Your task to perform on an android device: Go to ESPN.com Image 0: 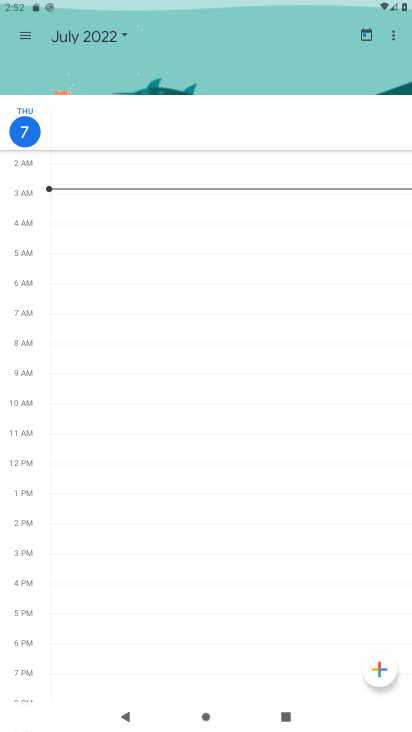
Step 0: press home button
Your task to perform on an android device: Go to ESPN.com Image 1: 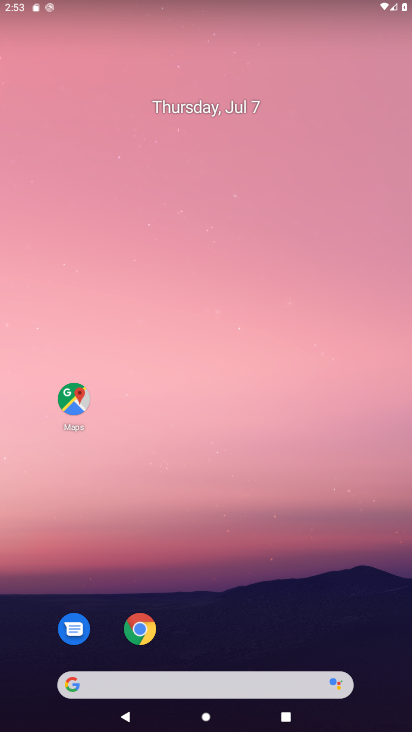
Step 1: click (143, 623)
Your task to perform on an android device: Go to ESPN.com Image 2: 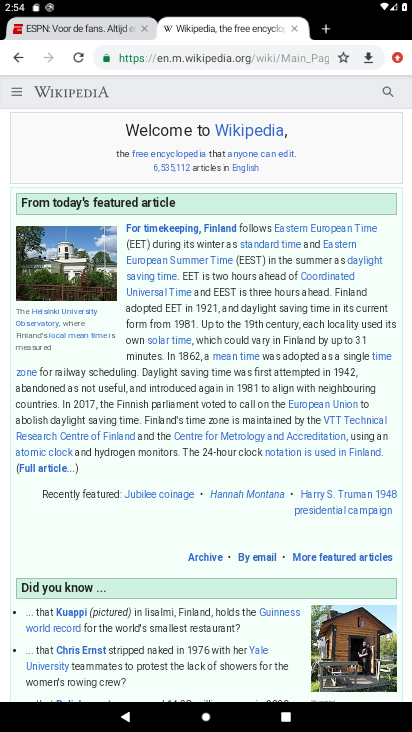
Step 2: click (38, 31)
Your task to perform on an android device: Go to ESPN.com Image 3: 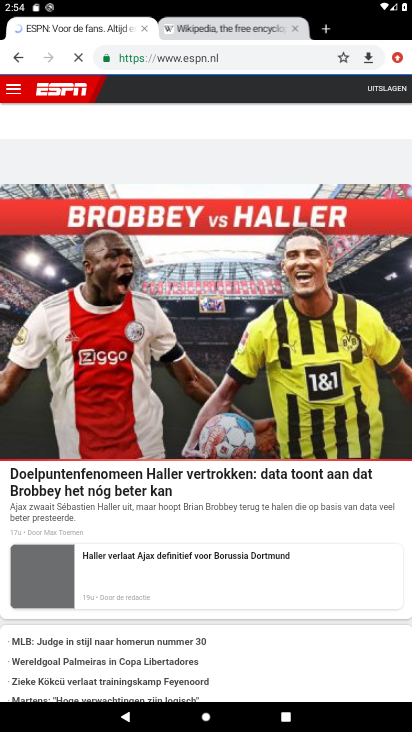
Step 3: task complete